Your task to perform on an android device: Go to accessibility settings Image 0: 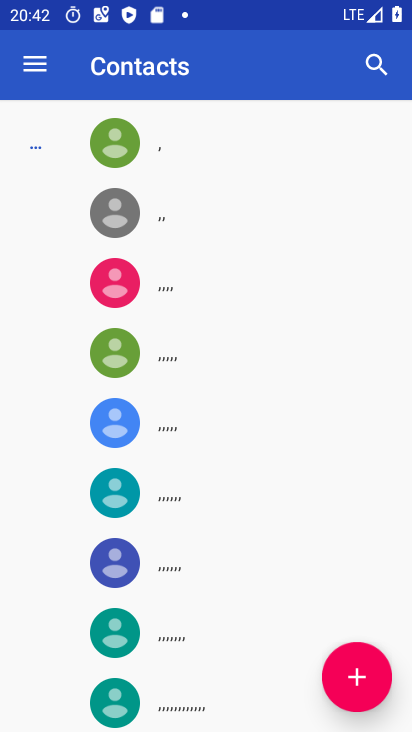
Step 0: press home button
Your task to perform on an android device: Go to accessibility settings Image 1: 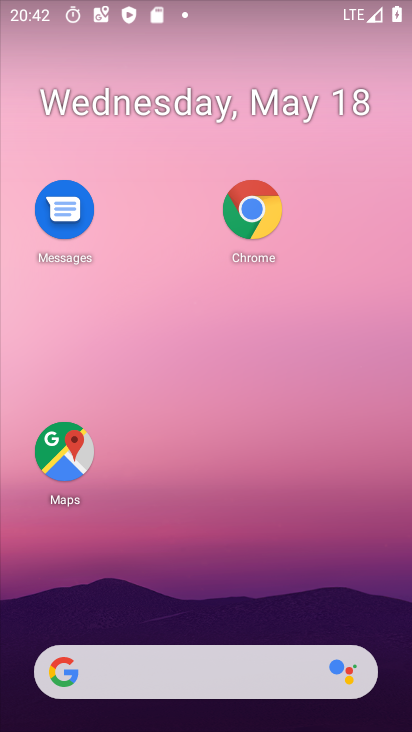
Step 1: drag from (134, 598) to (163, 4)
Your task to perform on an android device: Go to accessibility settings Image 2: 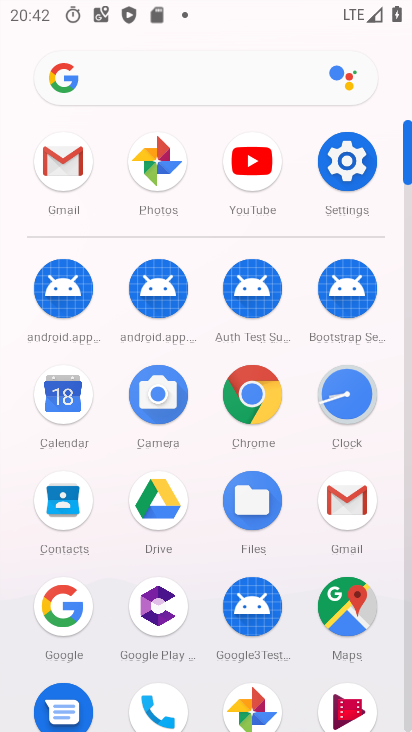
Step 2: click (349, 157)
Your task to perform on an android device: Go to accessibility settings Image 3: 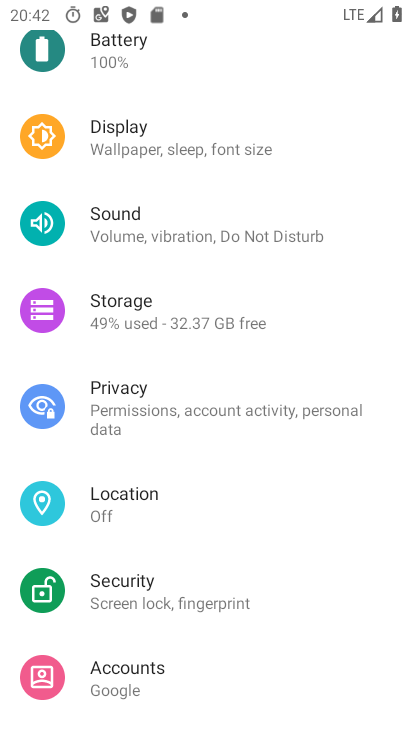
Step 3: drag from (112, 644) to (231, 197)
Your task to perform on an android device: Go to accessibility settings Image 4: 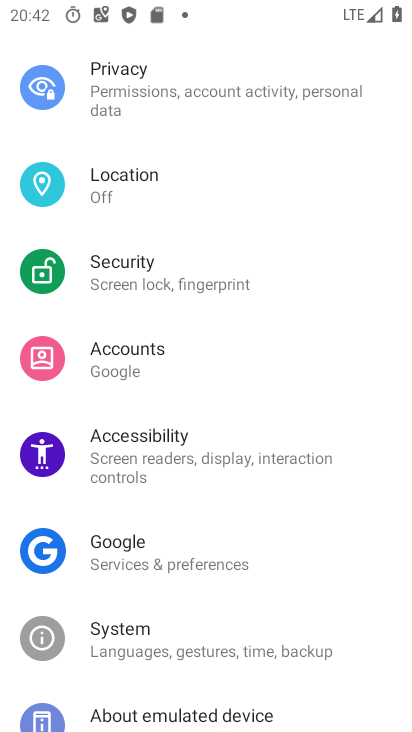
Step 4: drag from (174, 194) to (218, 538)
Your task to perform on an android device: Go to accessibility settings Image 5: 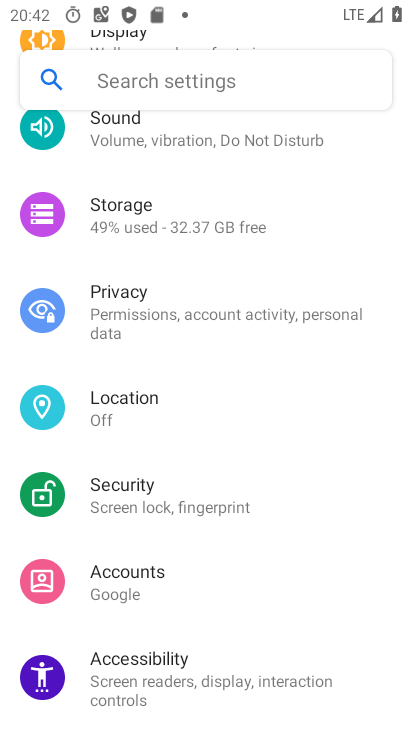
Step 5: drag from (150, 180) to (195, 666)
Your task to perform on an android device: Go to accessibility settings Image 6: 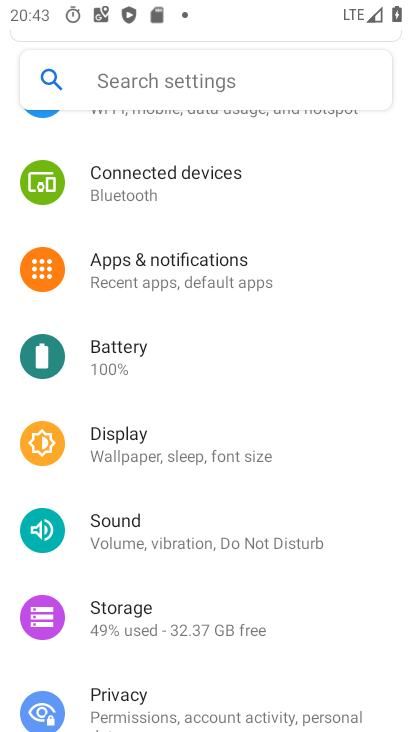
Step 6: drag from (82, 621) to (261, 173)
Your task to perform on an android device: Go to accessibility settings Image 7: 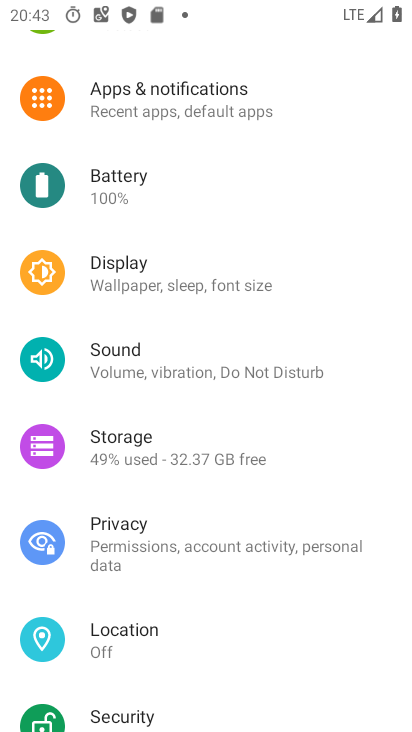
Step 7: drag from (140, 624) to (250, 142)
Your task to perform on an android device: Go to accessibility settings Image 8: 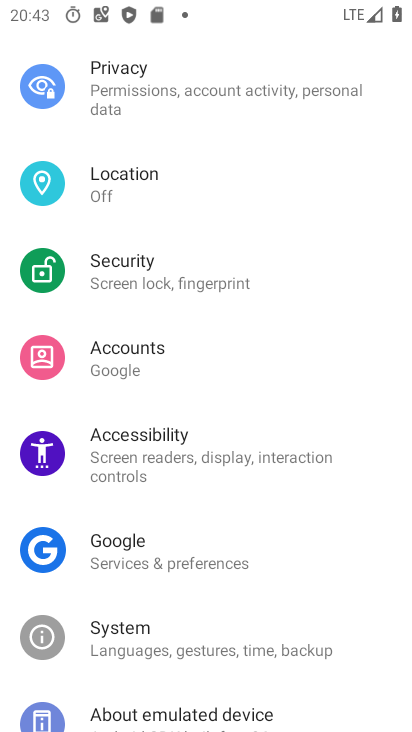
Step 8: click (133, 458)
Your task to perform on an android device: Go to accessibility settings Image 9: 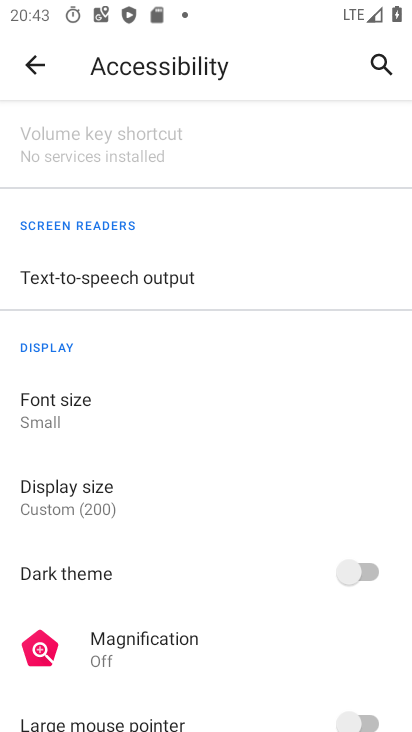
Step 9: task complete